Your task to perform on an android device: Open Wikipedia Image 0: 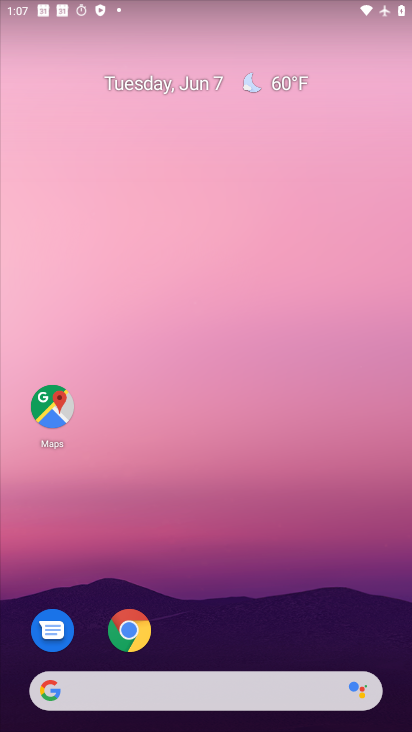
Step 0: drag from (359, 545) to (289, 89)
Your task to perform on an android device: Open Wikipedia Image 1: 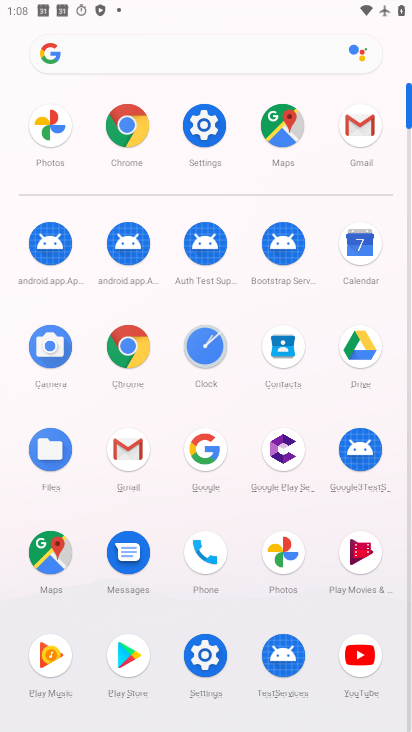
Step 1: click (201, 460)
Your task to perform on an android device: Open Wikipedia Image 2: 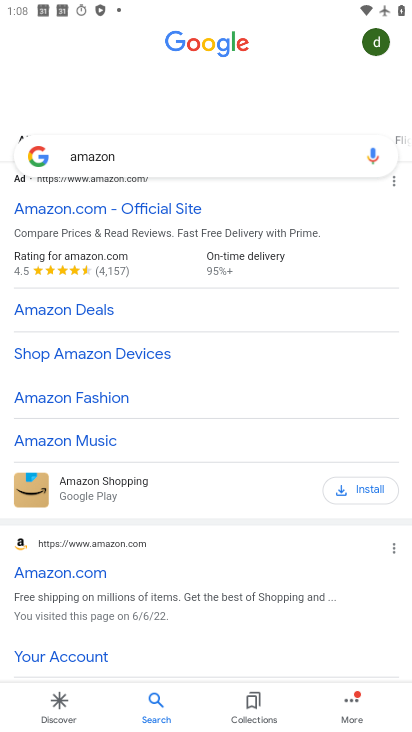
Step 2: press back button
Your task to perform on an android device: Open Wikipedia Image 3: 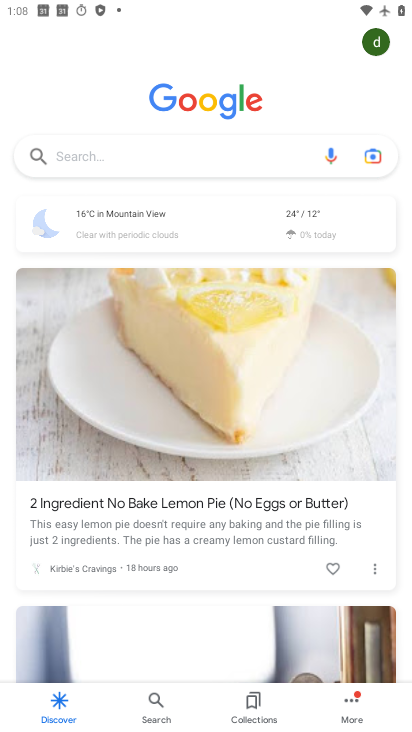
Step 3: click (115, 174)
Your task to perform on an android device: Open Wikipedia Image 4: 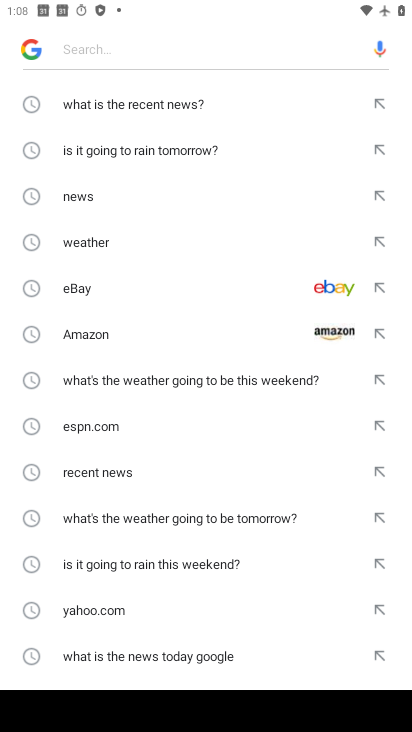
Step 4: drag from (69, 612) to (145, 168)
Your task to perform on an android device: Open Wikipedia Image 5: 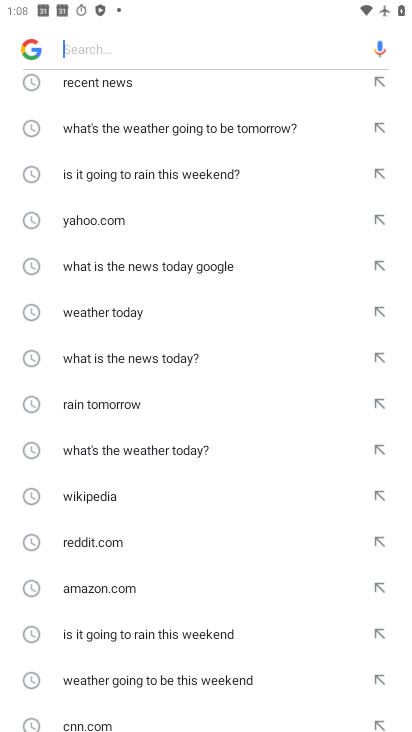
Step 5: click (113, 507)
Your task to perform on an android device: Open Wikipedia Image 6: 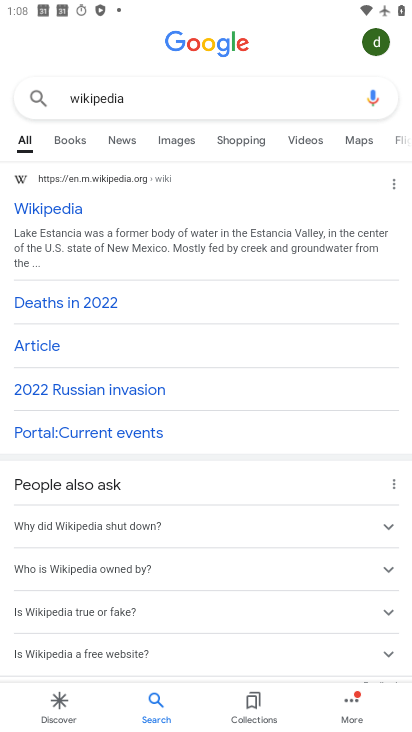
Step 6: task complete